Your task to perform on an android device: open app "Adobe Acrobat Reader: Edit PDF" (install if not already installed), go to login, and select forgot password Image 0: 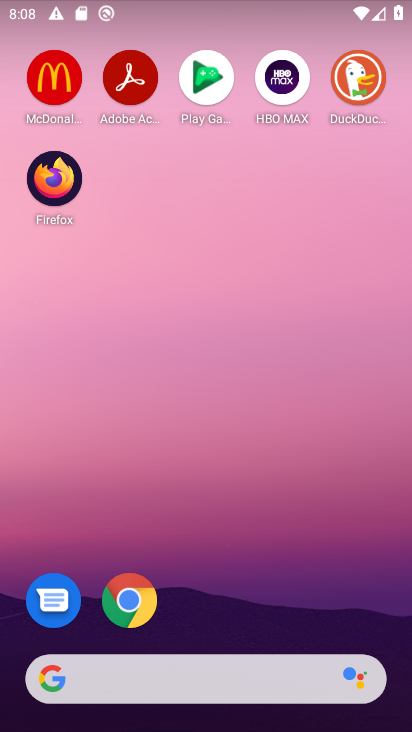
Step 0: drag from (197, 597) to (228, 181)
Your task to perform on an android device: open app "Adobe Acrobat Reader: Edit PDF" (install if not already installed), go to login, and select forgot password Image 1: 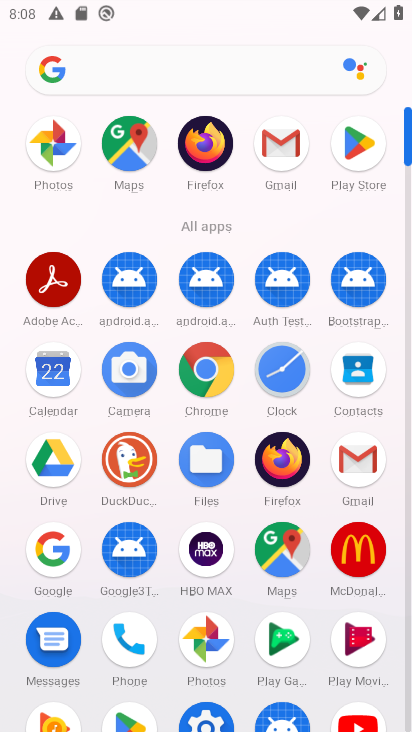
Step 1: click (356, 134)
Your task to perform on an android device: open app "Adobe Acrobat Reader: Edit PDF" (install if not already installed), go to login, and select forgot password Image 2: 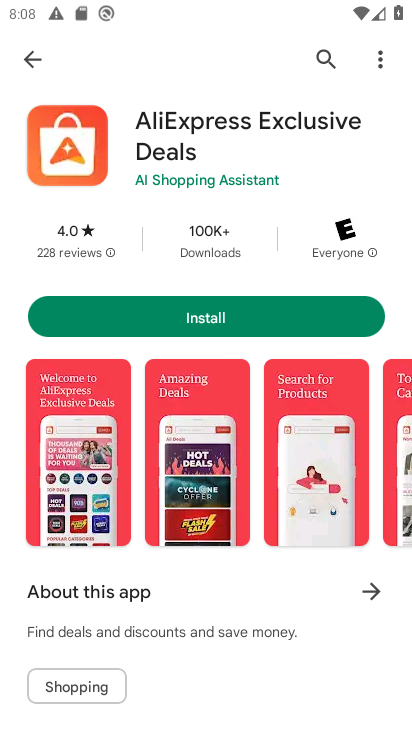
Step 2: click (328, 59)
Your task to perform on an android device: open app "Adobe Acrobat Reader: Edit PDF" (install if not already installed), go to login, and select forgot password Image 3: 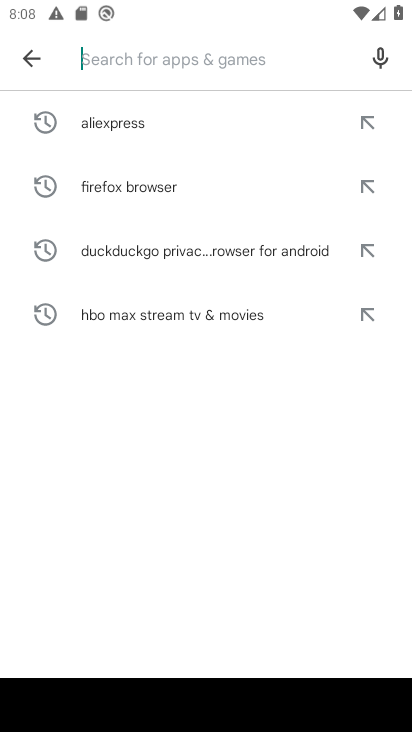
Step 3: type "Adobe Acrobat Reader: Edit PDF"
Your task to perform on an android device: open app "Adobe Acrobat Reader: Edit PDF" (install if not already installed), go to login, and select forgot password Image 4: 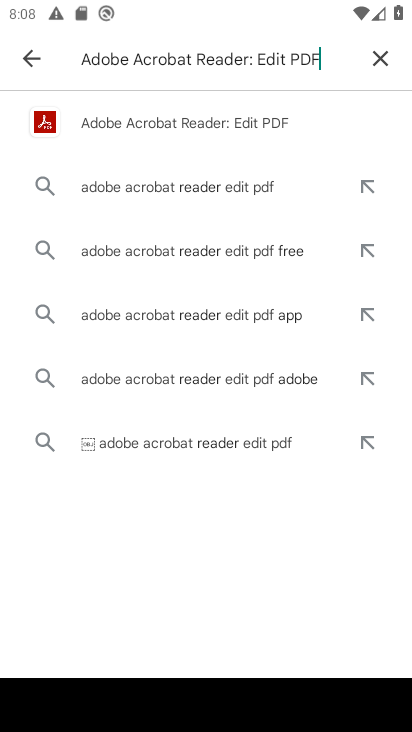
Step 4: click (96, 131)
Your task to perform on an android device: open app "Adobe Acrobat Reader: Edit PDF" (install if not already installed), go to login, and select forgot password Image 5: 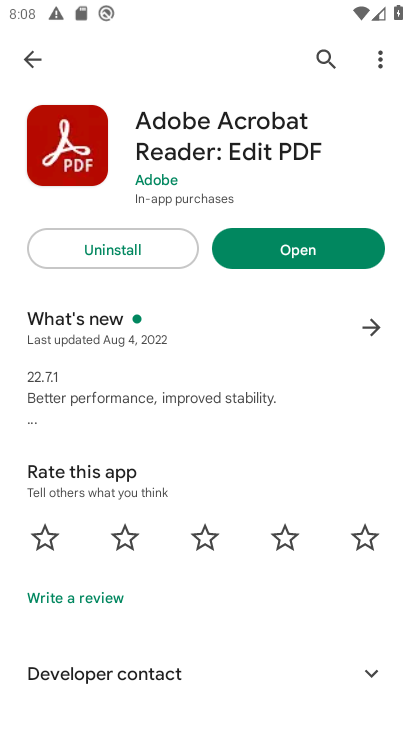
Step 5: click (261, 240)
Your task to perform on an android device: open app "Adobe Acrobat Reader: Edit PDF" (install if not already installed), go to login, and select forgot password Image 6: 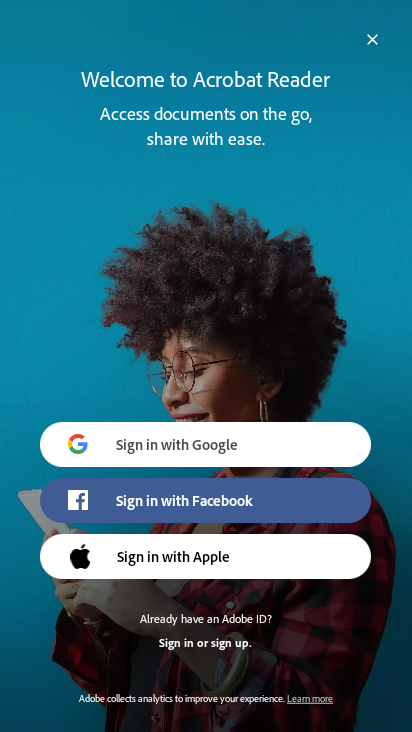
Step 6: task complete